Your task to perform on an android device: turn off data saver in the chrome app Image 0: 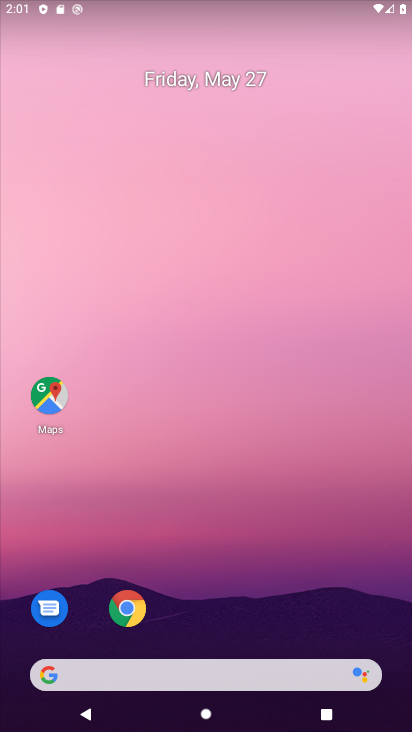
Step 0: press home button
Your task to perform on an android device: turn off data saver in the chrome app Image 1: 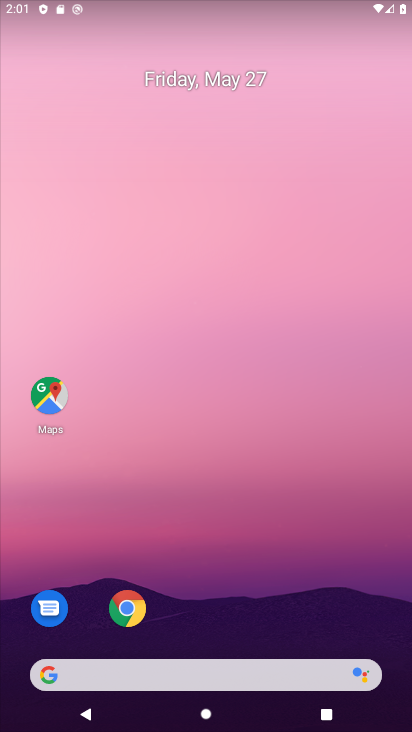
Step 1: click (137, 613)
Your task to perform on an android device: turn off data saver in the chrome app Image 2: 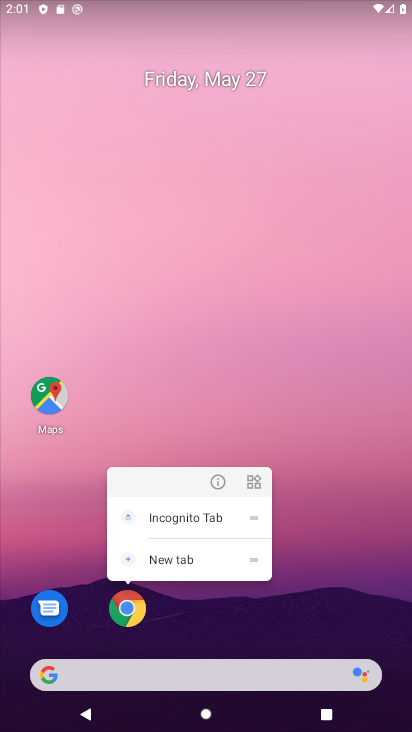
Step 2: click (124, 614)
Your task to perform on an android device: turn off data saver in the chrome app Image 3: 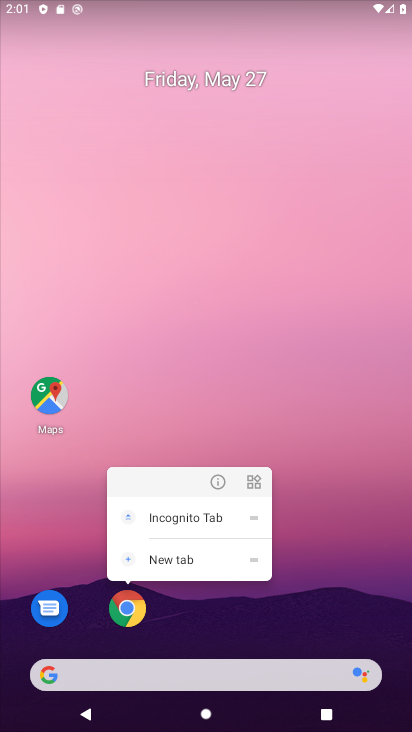
Step 3: click (126, 613)
Your task to perform on an android device: turn off data saver in the chrome app Image 4: 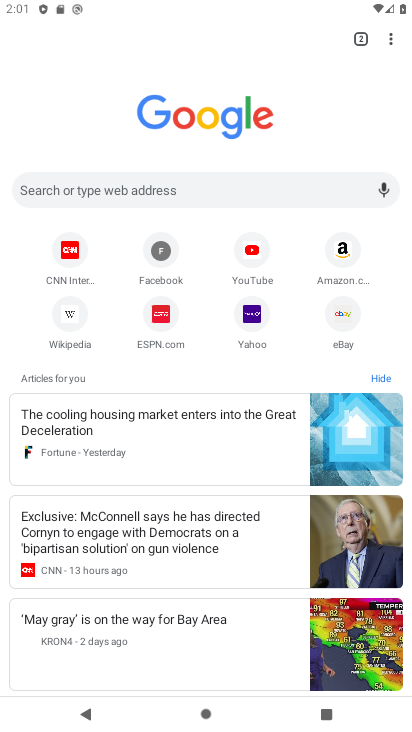
Step 4: click (389, 38)
Your task to perform on an android device: turn off data saver in the chrome app Image 5: 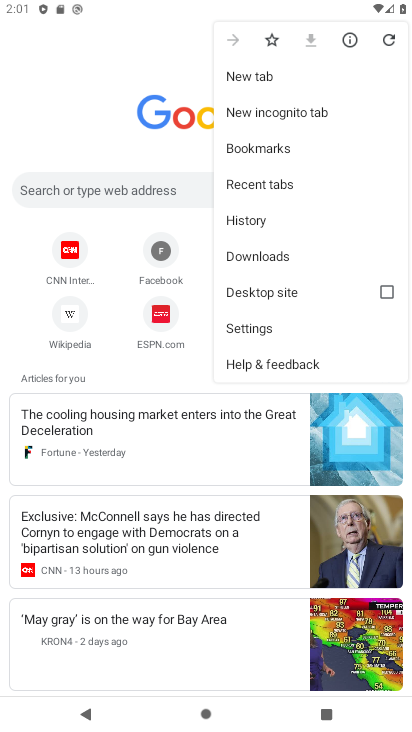
Step 5: click (249, 324)
Your task to perform on an android device: turn off data saver in the chrome app Image 6: 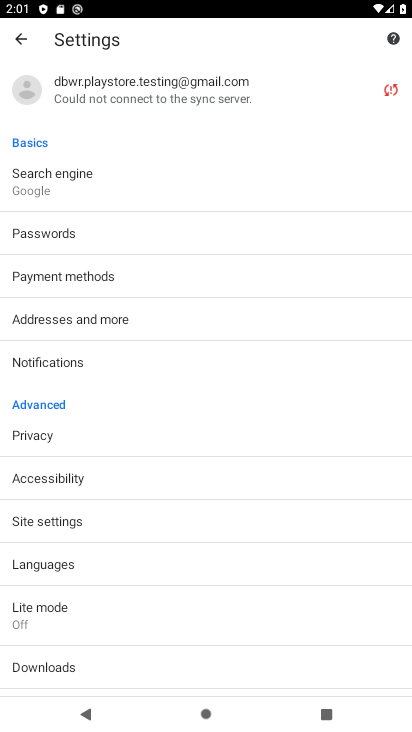
Step 6: click (80, 614)
Your task to perform on an android device: turn off data saver in the chrome app Image 7: 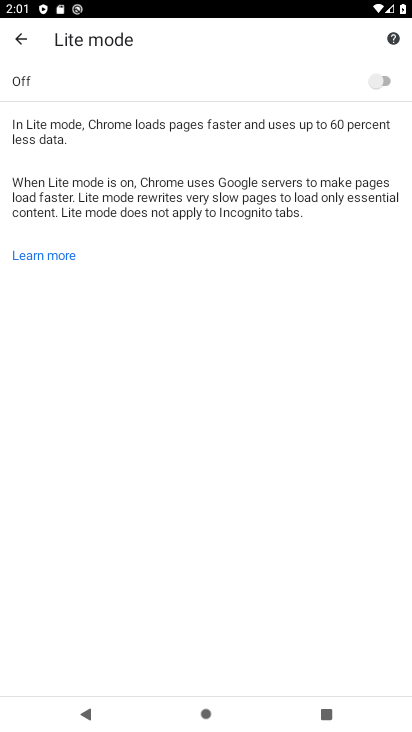
Step 7: task complete